Your task to perform on an android device: Go to sound settings Image 0: 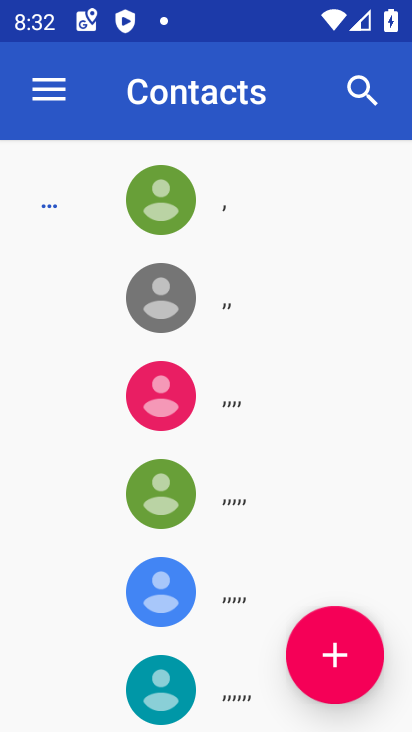
Step 0: press home button
Your task to perform on an android device: Go to sound settings Image 1: 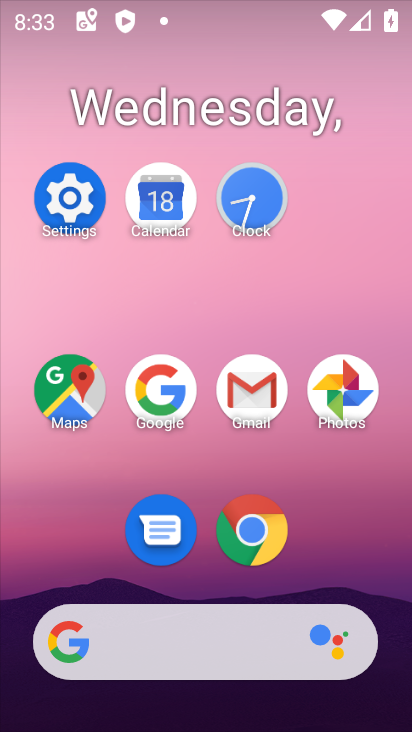
Step 1: click (24, 205)
Your task to perform on an android device: Go to sound settings Image 2: 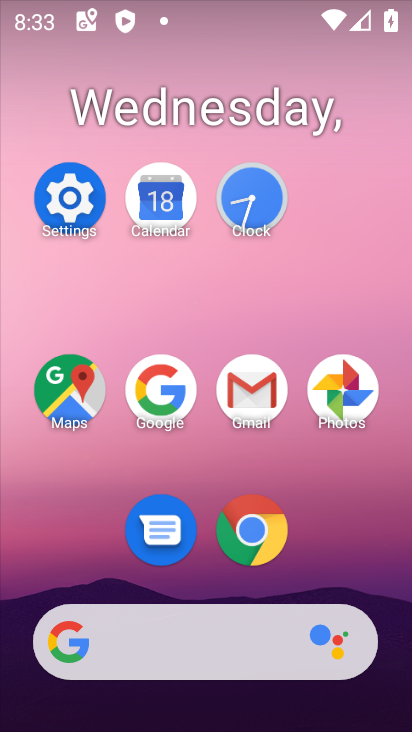
Step 2: click (86, 200)
Your task to perform on an android device: Go to sound settings Image 3: 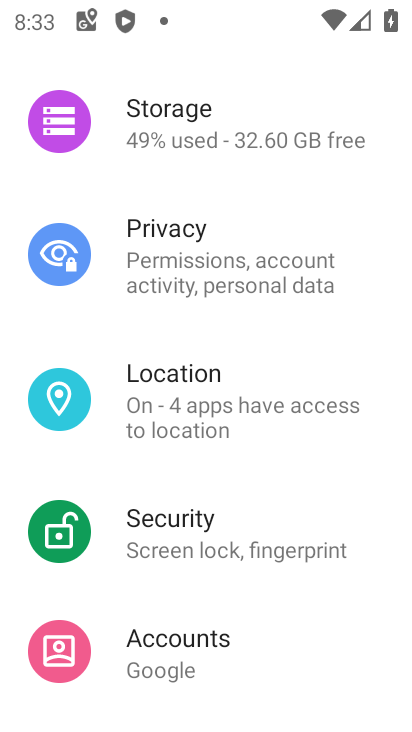
Step 3: drag from (275, 576) to (304, 180)
Your task to perform on an android device: Go to sound settings Image 4: 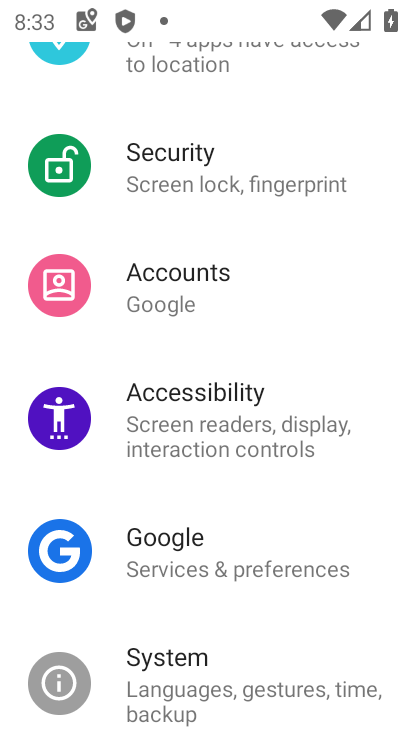
Step 4: drag from (302, 216) to (245, 664)
Your task to perform on an android device: Go to sound settings Image 5: 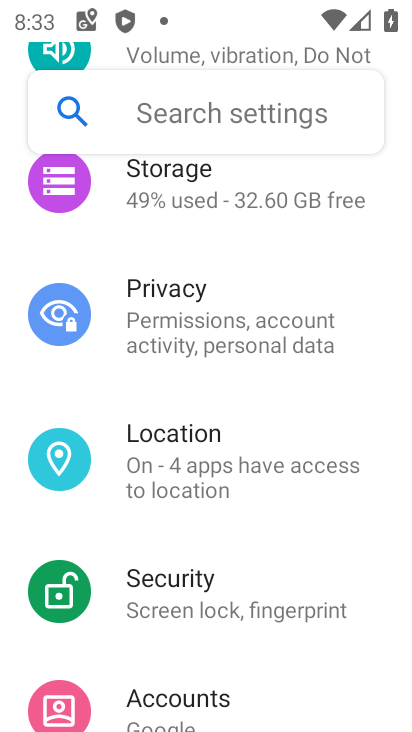
Step 5: drag from (307, 251) to (275, 651)
Your task to perform on an android device: Go to sound settings Image 6: 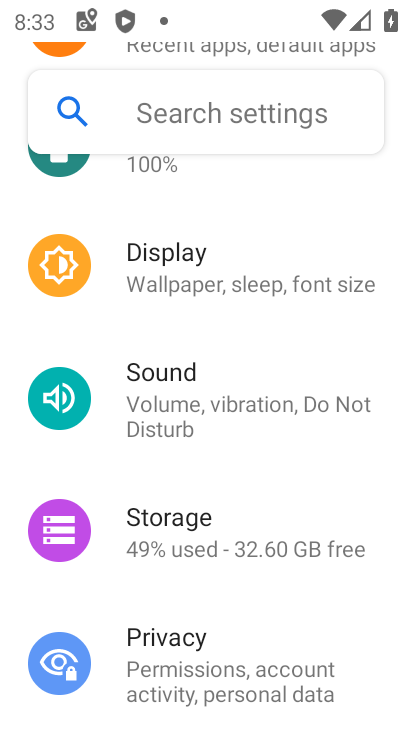
Step 6: click (269, 377)
Your task to perform on an android device: Go to sound settings Image 7: 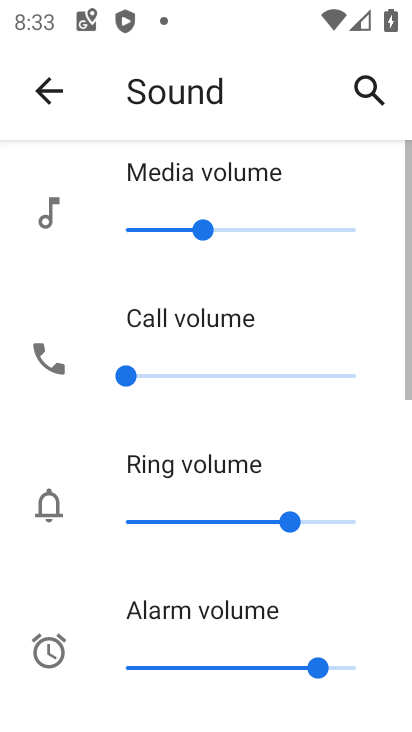
Step 7: task complete